Your task to perform on an android device: star an email in the gmail app Image 0: 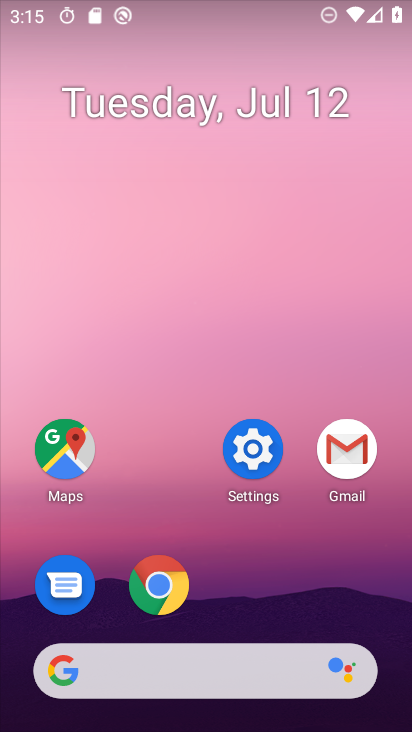
Step 0: click (338, 440)
Your task to perform on an android device: star an email in the gmail app Image 1: 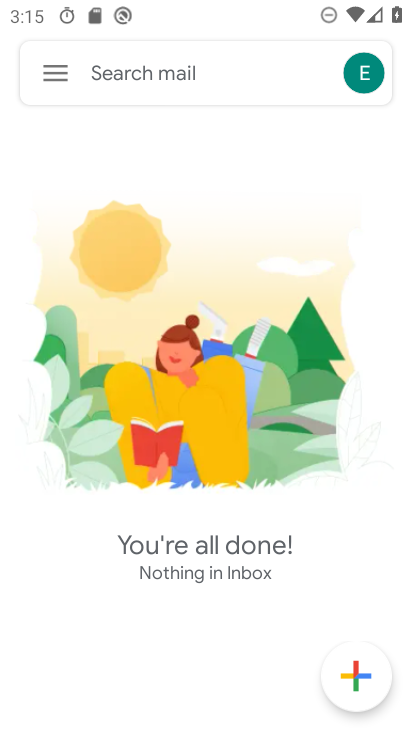
Step 1: task complete